Your task to perform on an android device: Go to Android settings Image 0: 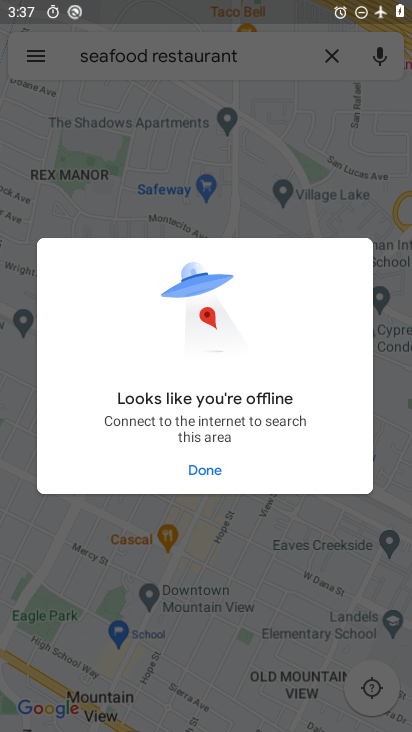
Step 0: press home button
Your task to perform on an android device: Go to Android settings Image 1: 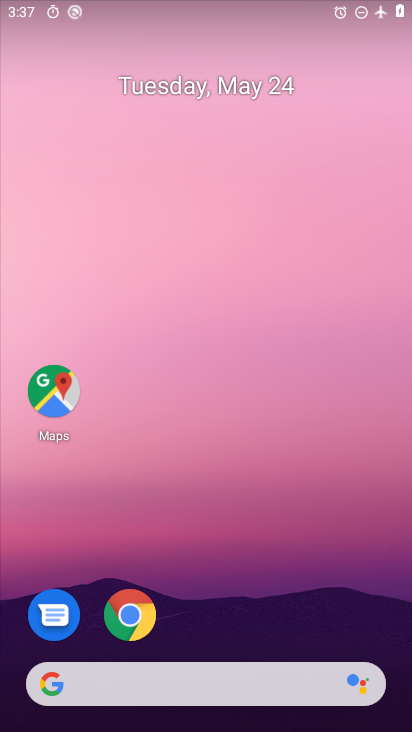
Step 1: drag from (219, 655) to (266, 276)
Your task to perform on an android device: Go to Android settings Image 2: 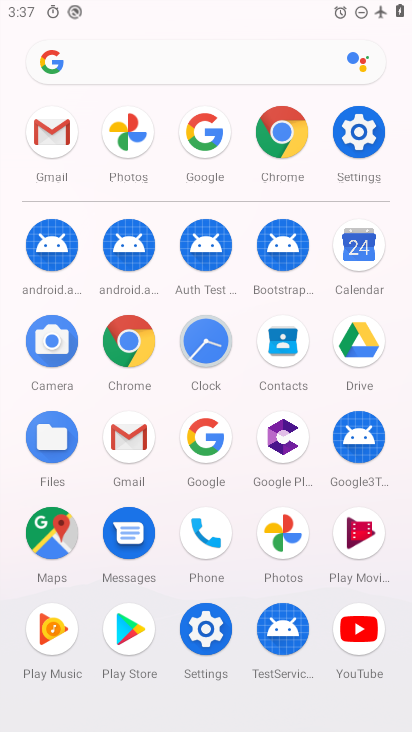
Step 2: click (223, 632)
Your task to perform on an android device: Go to Android settings Image 3: 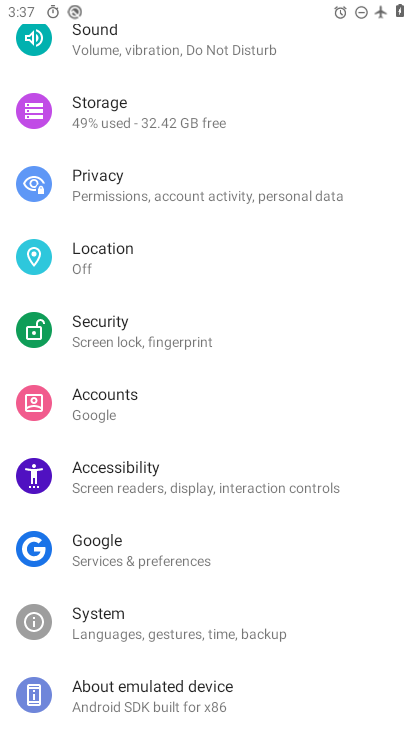
Step 3: task complete